Your task to perform on an android device: Open internet settings Image 0: 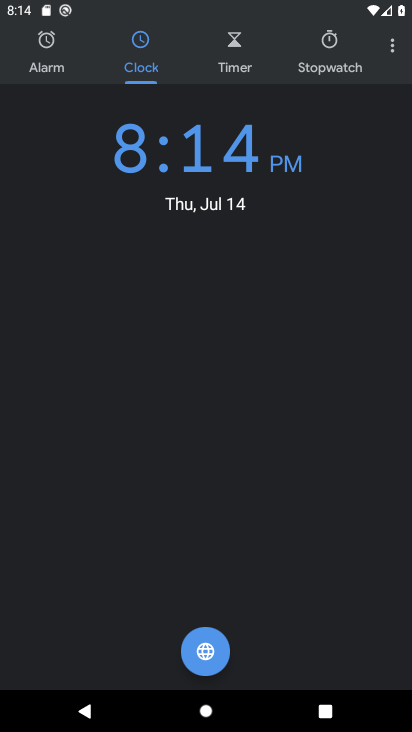
Step 0: press home button
Your task to perform on an android device: Open internet settings Image 1: 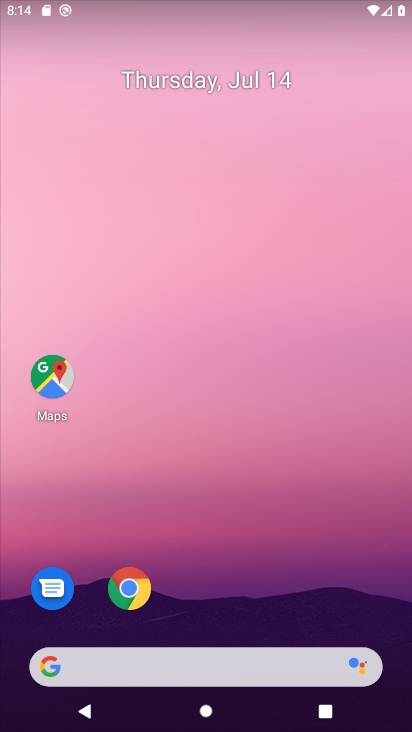
Step 1: drag from (348, 575) to (401, 12)
Your task to perform on an android device: Open internet settings Image 2: 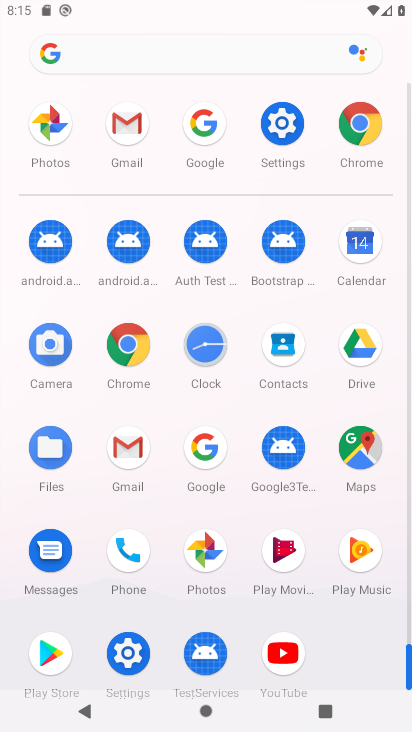
Step 2: click (286, 131)
Your task to perform on an android device: Open internet settings Image 3: 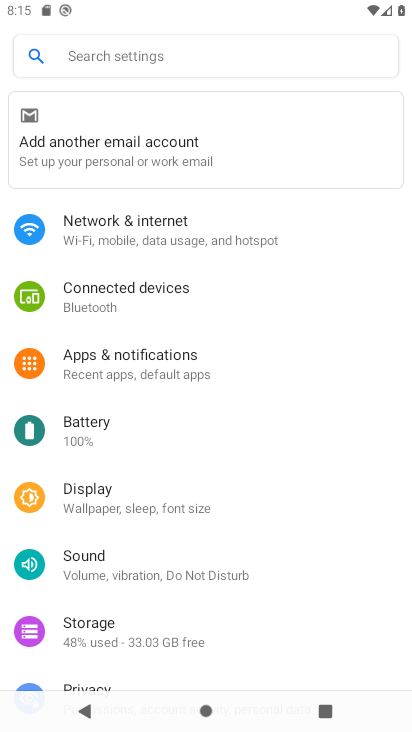
Step 3: drag from (353, 572) to (359, 446)
Your task to perform on an android device: Open internet settings Image 4: 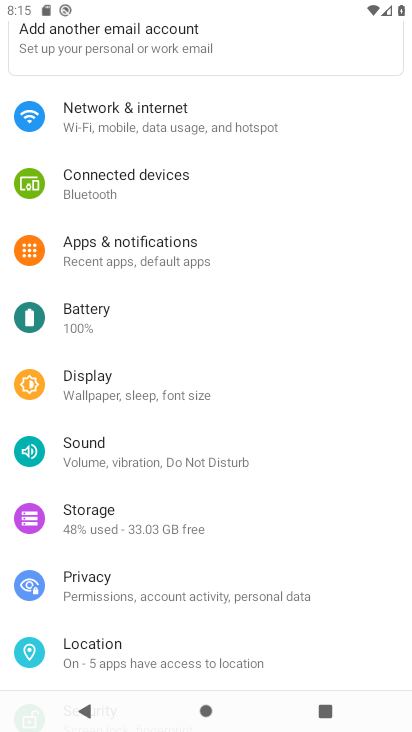
Step 4: drag from (370, 565) to (369, 392)
Your task to perform on an android device: Open internet settings Image 5: 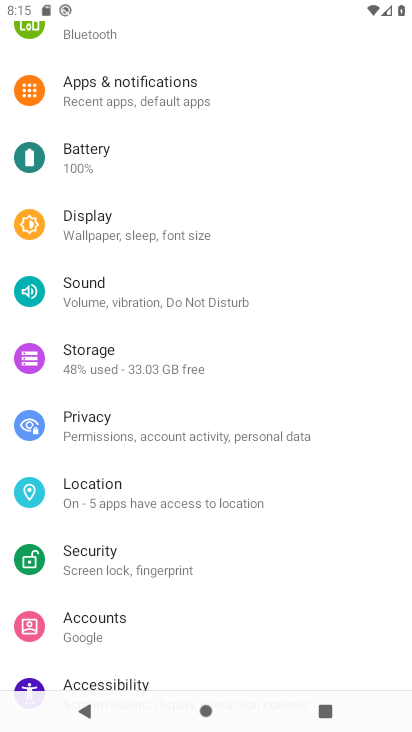
Step 5: drag from (378, 581) to (372, 471)
Your task to perform on an android device: Open internet settings Image 6: 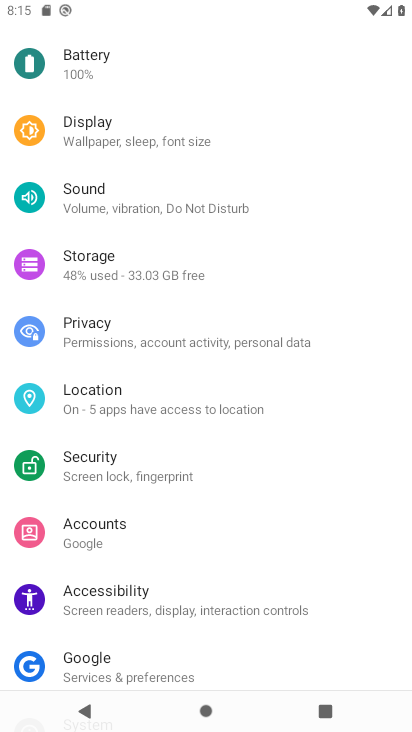
Step 6: drag from (355, 572) to (355, 451)
Your task to perform on an android device: Open internet settings Image 7: 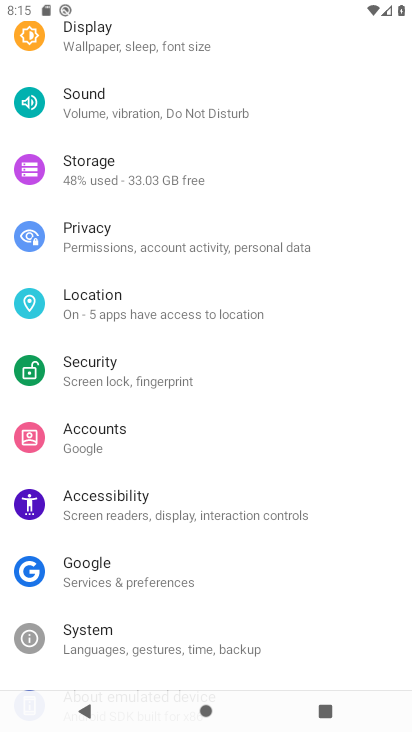
Step 7: drag from (340, 601) to (367, 416)
Your task to perform on an android device: Open internet settings Image 8: 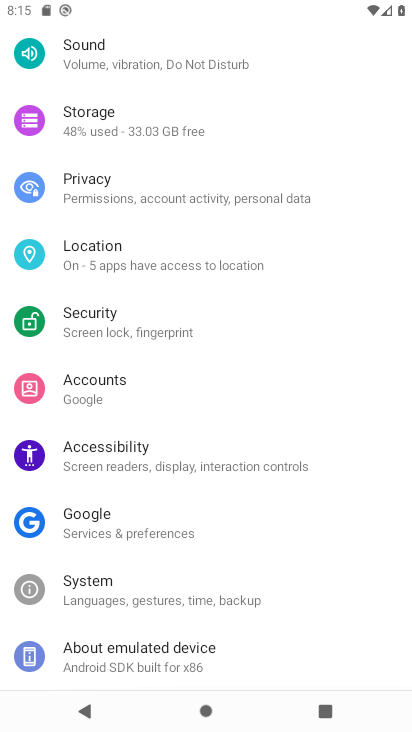
Step 8: drag from (373, 289) to (372, 356)
Your task to perform on an android device: Open internet settings Image 9: 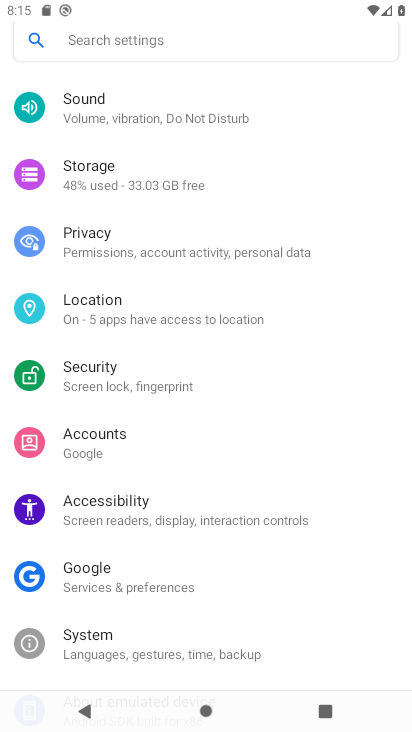
Step 9: drag from (376, 296) to (374, 379)
Your task to perform on an android device: Open internet settings Image 10: 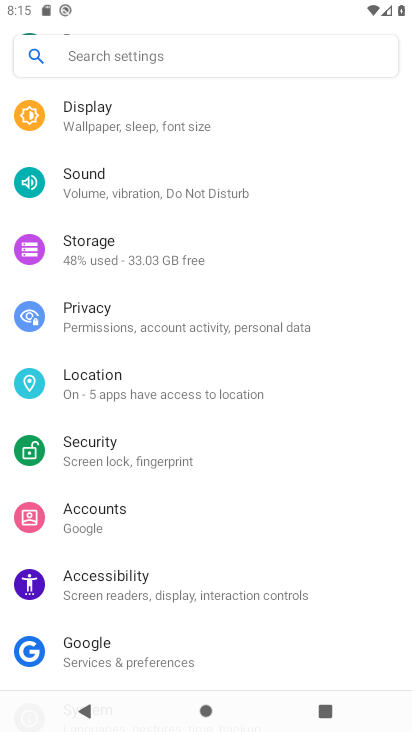
Step 10: drag from (375, 308) to (374, 420)
Your task to perform on an android device: Open internet settings Image 11: 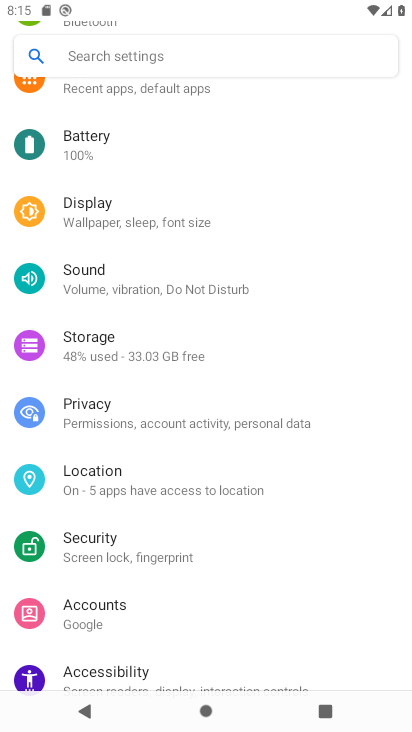
Step 11: drag from (377, 332) to (376, 413)
Your task to perform on an android device: Open internet settings Image 12: 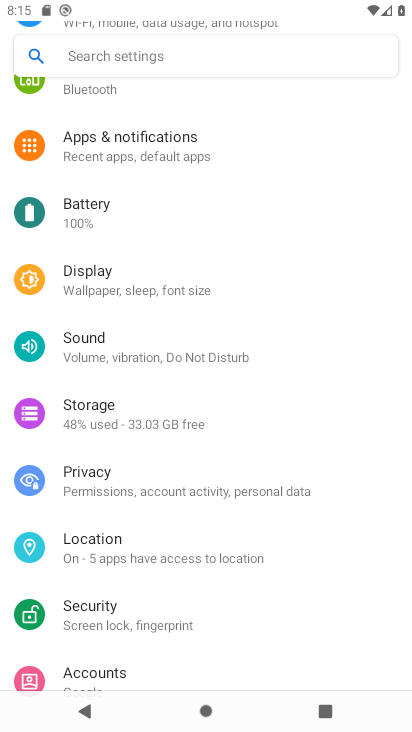
Step 12: drag from (381, 302) to (385, 390)
Your task to perform on an android device: Open internet settings Image 13: 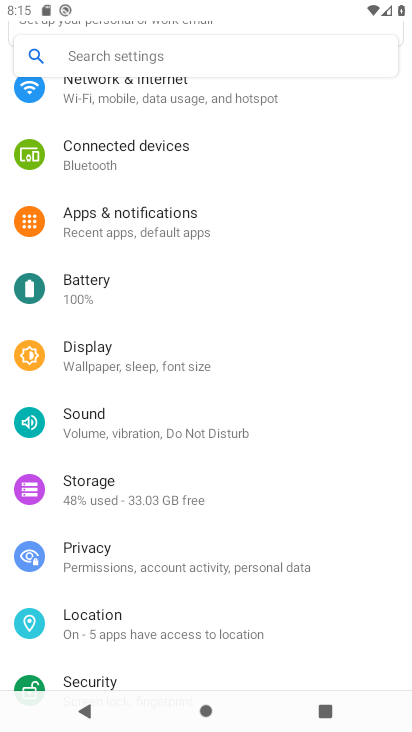
Step 13: drag from (383, 317) to (377, 406)
Your task to perform on an android device: Open internet settings Image 14: 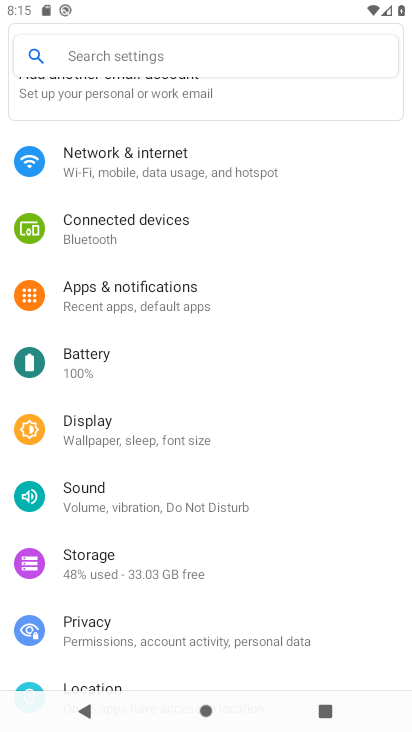
Step 14: drag from (375, 347) to (371, 442)
Your task to perform on an android device: Open internet settings Image 15: 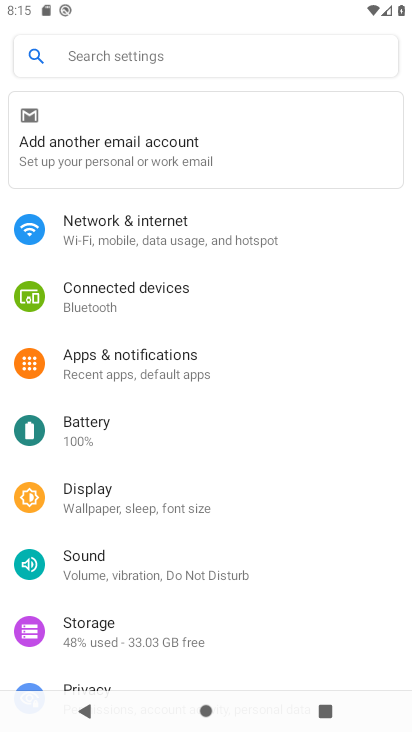
Step 15: drag from (361, 354) to (361, 442)
Your task to perform on an android device: Open internet settings Image 16: 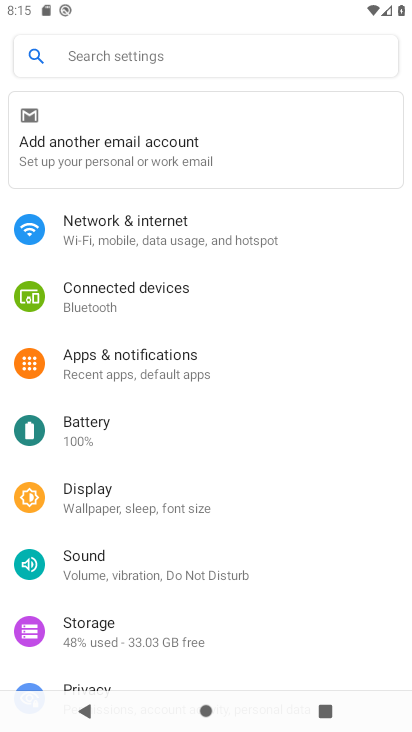
Step 16: click (289, 251)
Your task to perform on an android device: Open internet settings Image 17: 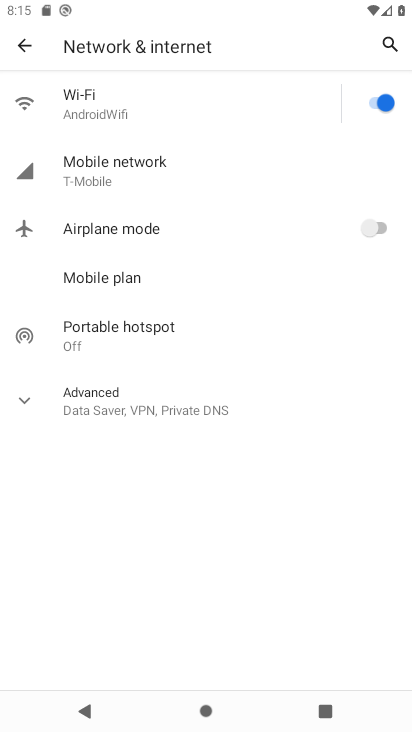
Step 17: task complete